Your task to perform on an android device: make emails show in primary in the gmail app Image 0: 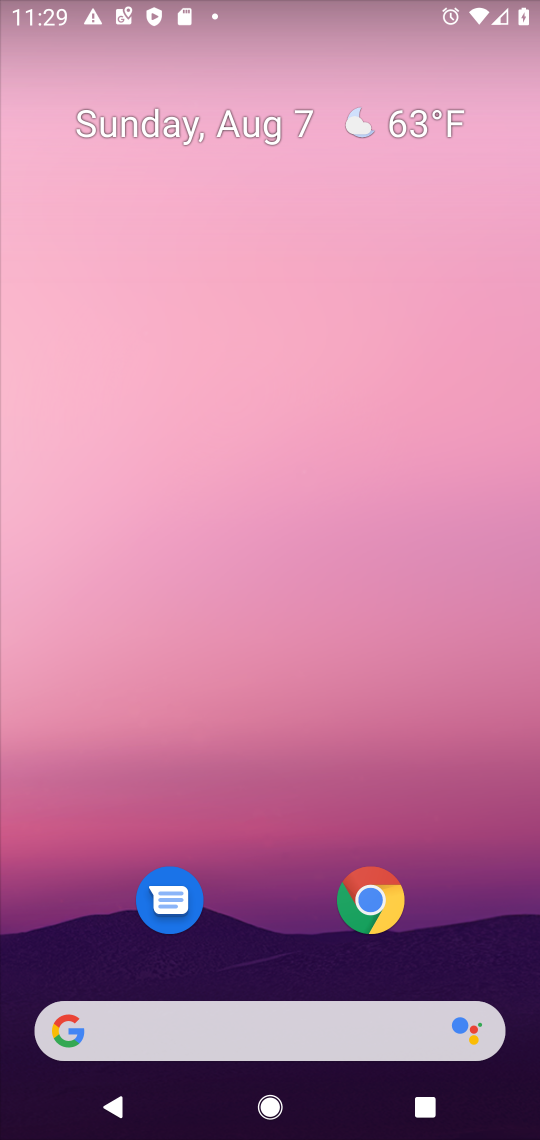
Step 0: drag from (284, 949) to (278, 53)
Your task to perform on an android device: make emails show in primary in the gmail app Image 1: 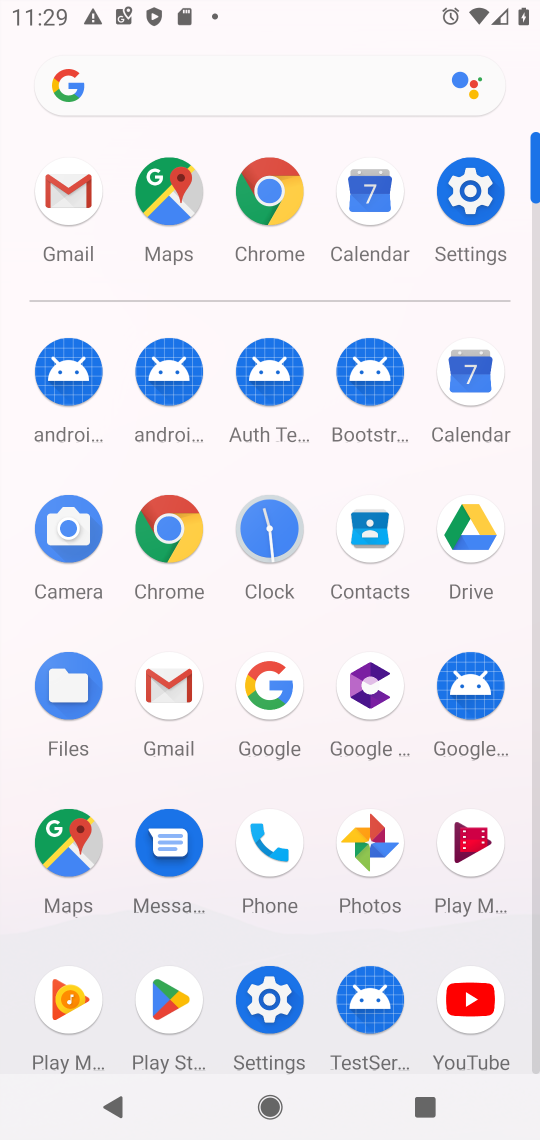
Step 1: click (170, 673)
Your task to perform on an android device: make emails show in primary in the gmail app Image 2: 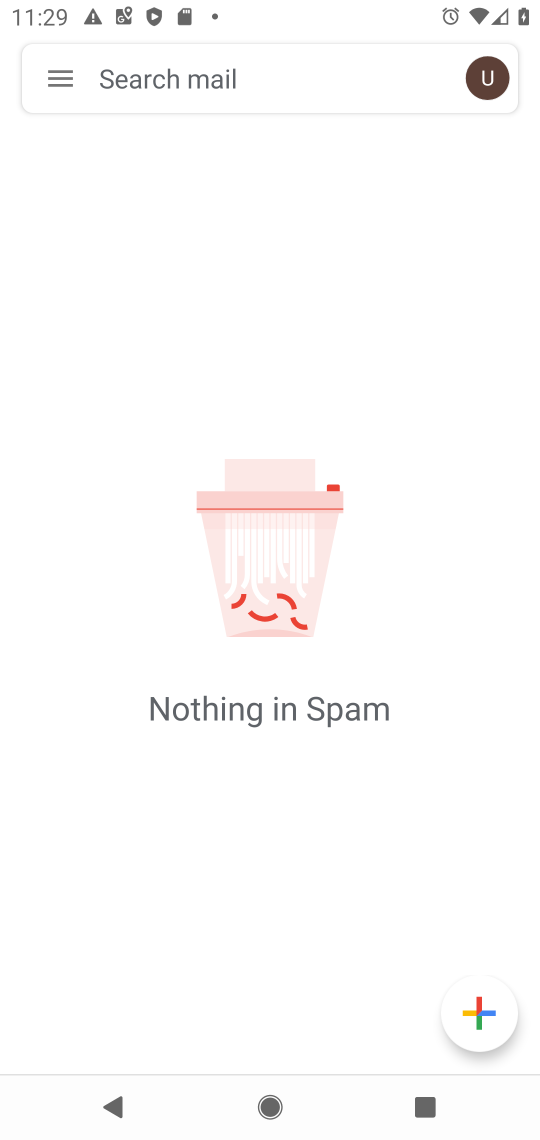
Step 2: click (58, 74)
Your task to perform on an android device: make emails show in primary in the gmail app Image 3: 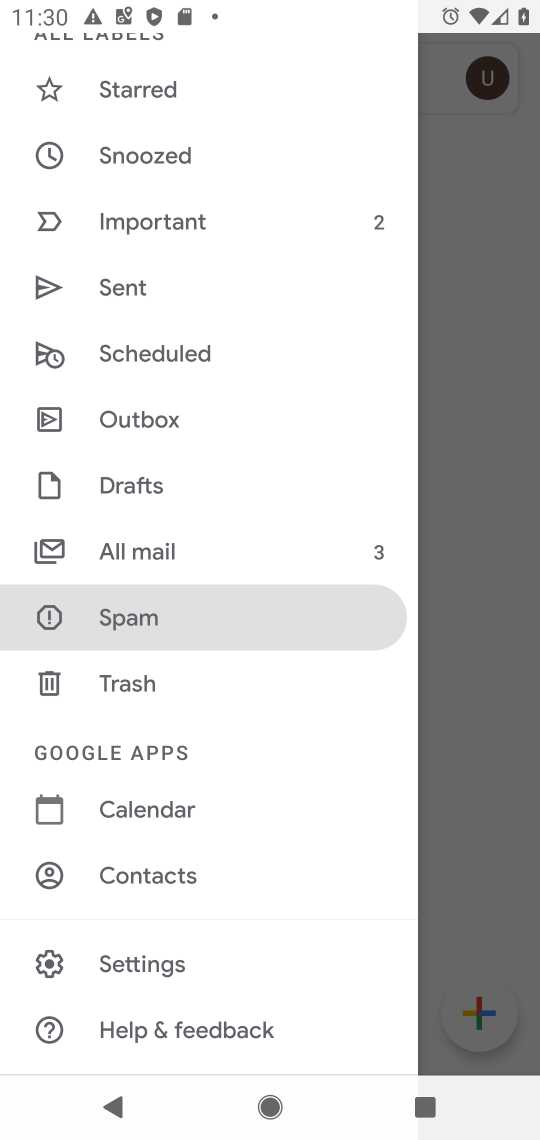
Step 3: click (189, 958)
Your task to perform on an android device: make emails show in primary in the gmail app Image 4: 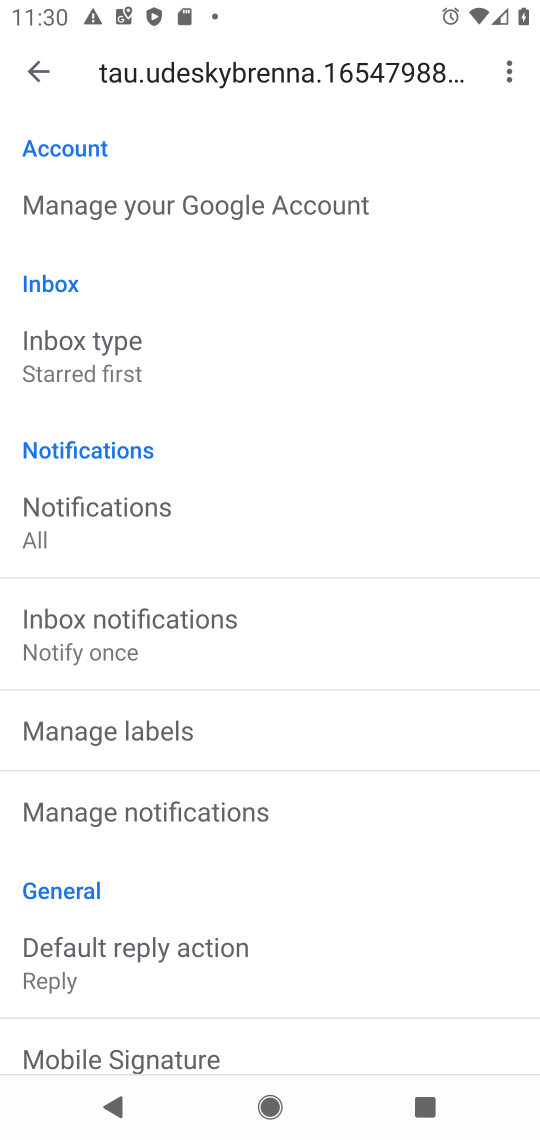
Step 4: drag from (150, 333) to (206, 948)
Your task to perform on an android device: make emails show in primary in the gmail app Image 5: 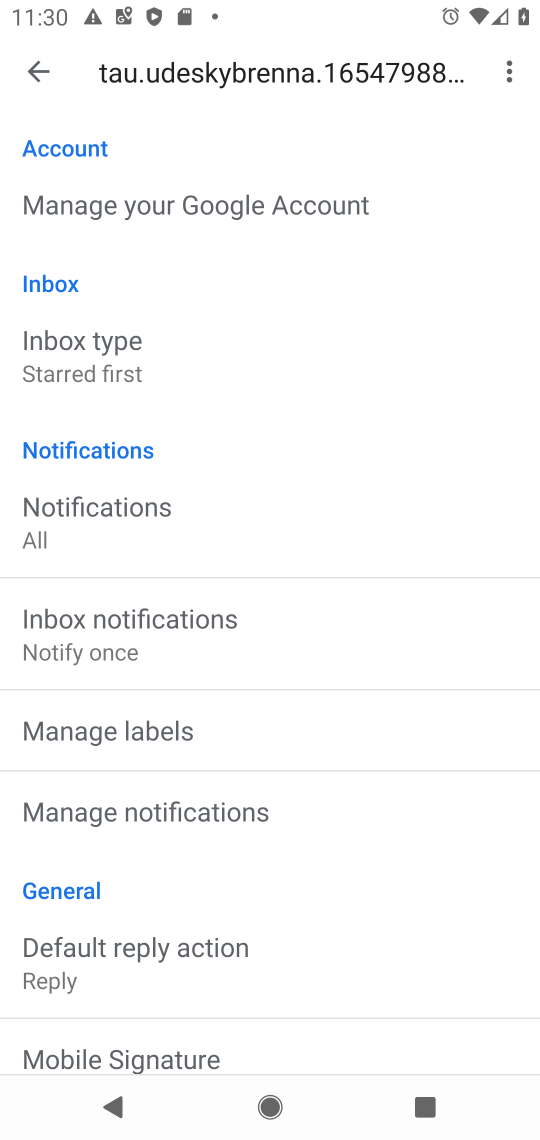
Step 5: drag from (166, 301) to (197, 706)
Your task to perform on an android device: make emails show in primary in the gmail app Image 6: 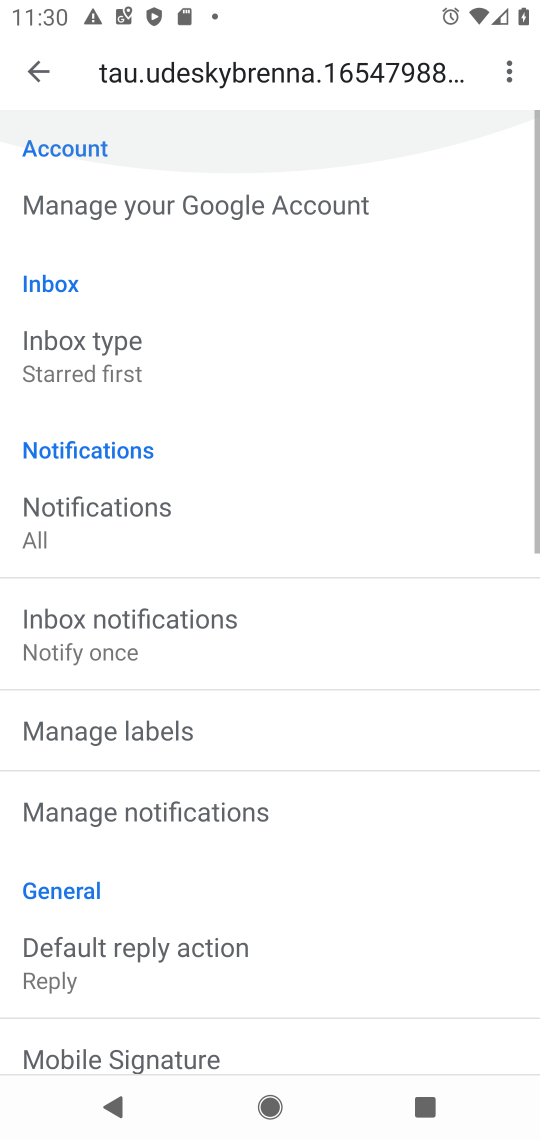
Step 6: click (170, 352)
Your task to perform on an android device: make emails show in primary in the gmail app Image 7: 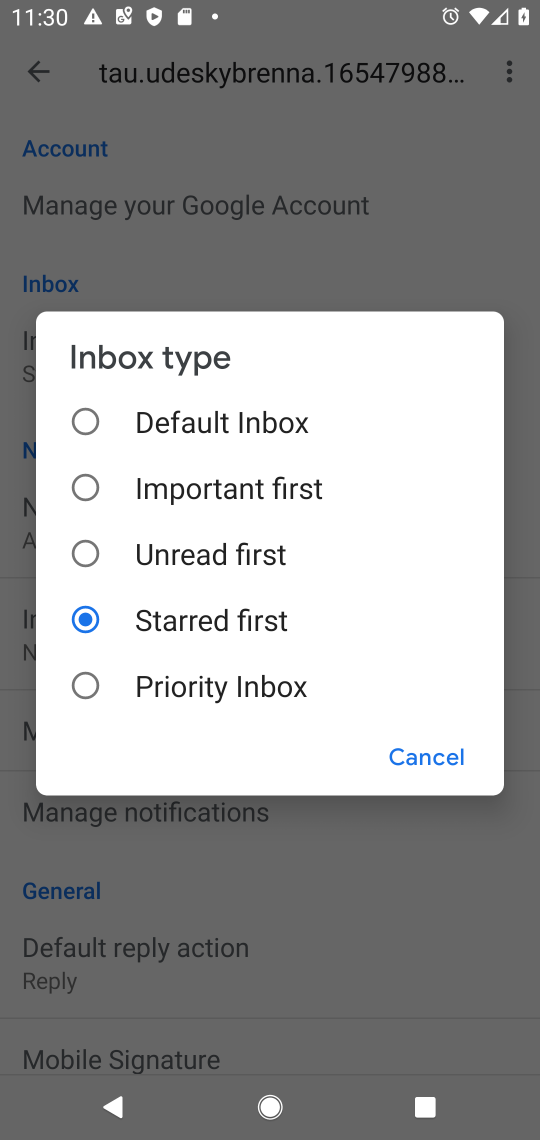
Step 7: click (88, 425)
Your task to perform on an android device: make emails show in primary in the gmail app Image 8: 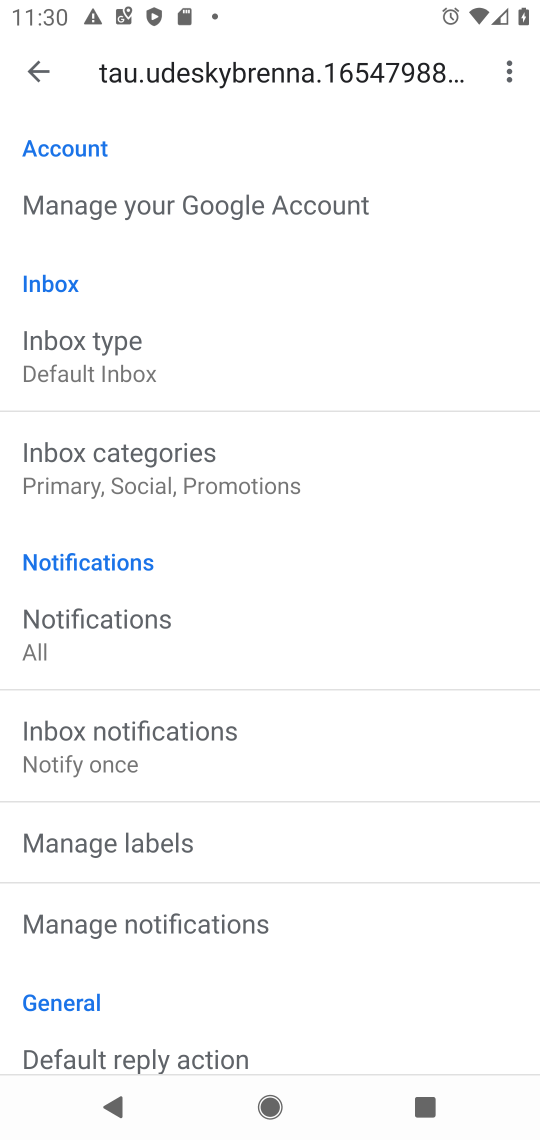
Step 8: task complete